Your task to perform on an android device: Open Android settings Image 0: 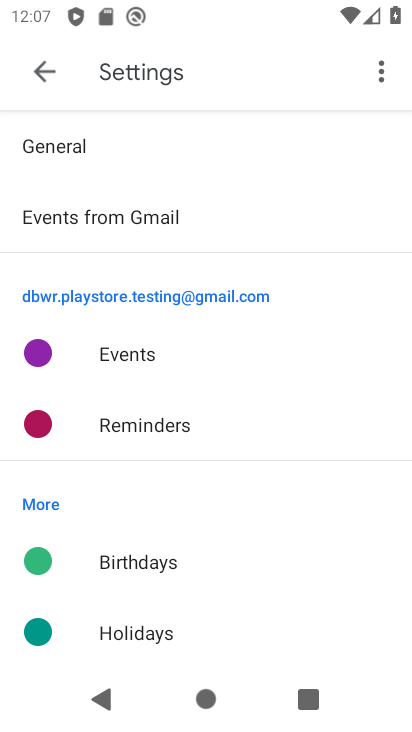
Step 0: press home button
Your task to perform on an android device: Open Android settings Image 1: 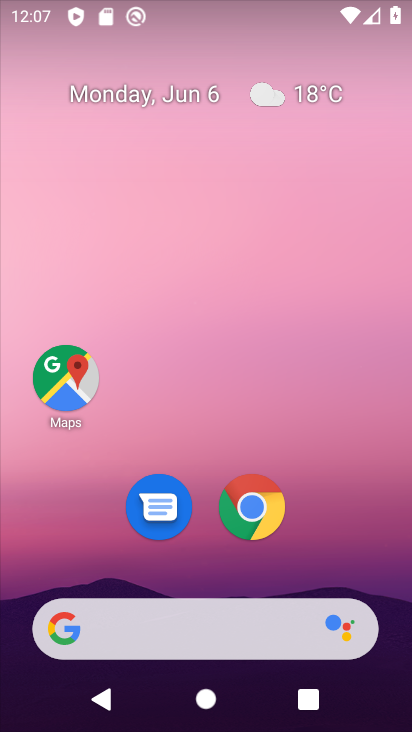
Step 1: drag from (212, 462) to (245, 181)
Your task to perform on an android device: Open Android settings Image 2: 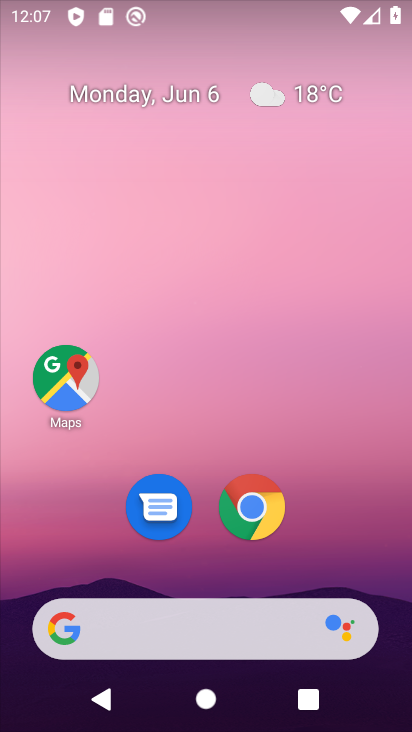
Step 2: drag from (232, 573) to (171, 0)
Your task to perform on an android device: Open Android settings Image 3: 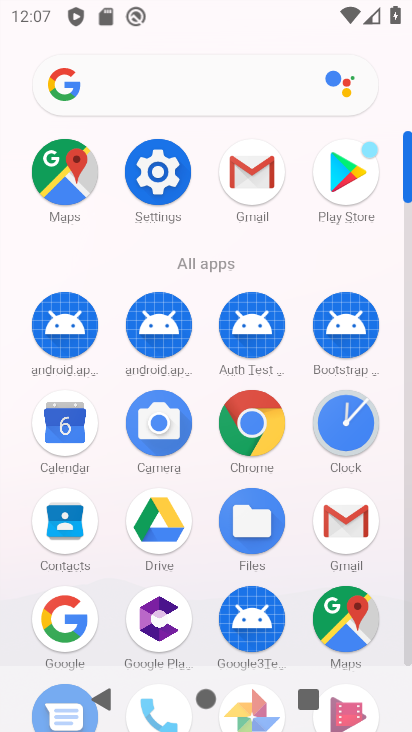
Step 3: click (167, 194)
Your task to perform on an android device: Open Android settings Image 4: 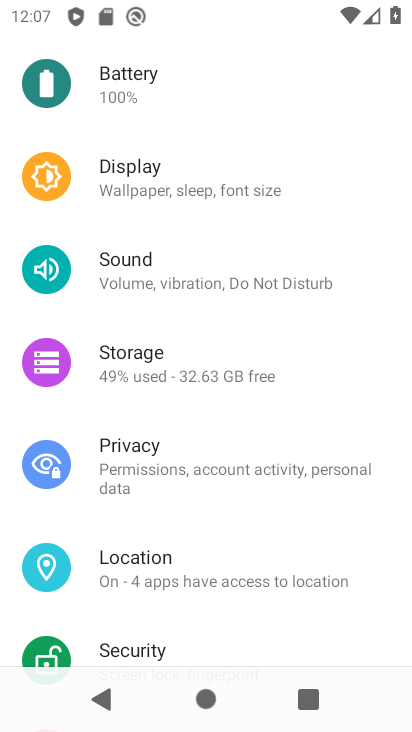
Step 4: drag from (207, 590) to (249, 197)
Your task to perform on an android device: Open Android settings Image 5: 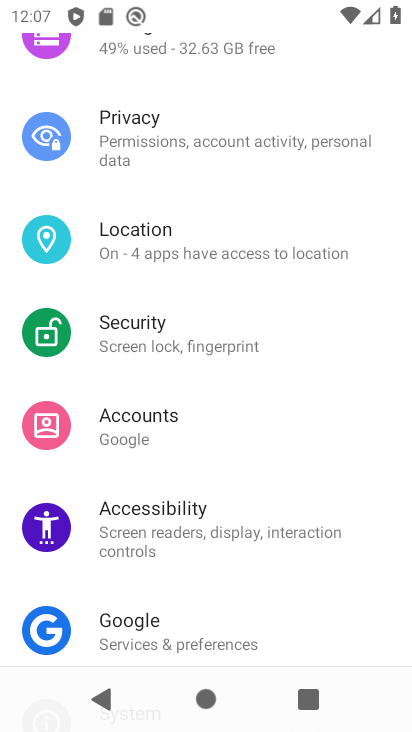
Step 5: drag from (188, 574) to (224, 245)
Your task to perform on an android device: Open Android settings Image 6: 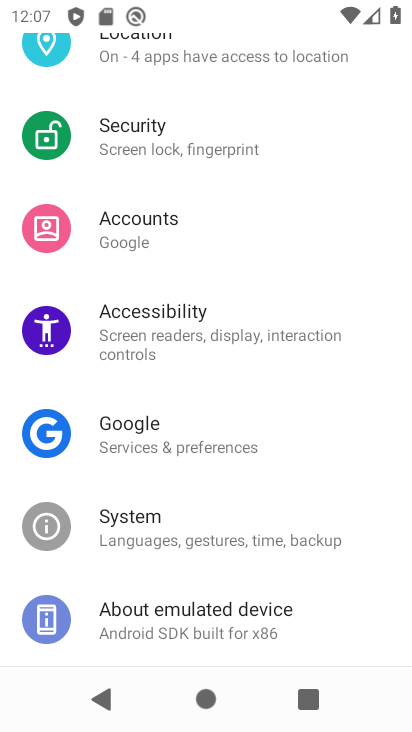
Step 6: click (185, 635)
Your task to perform on an android device: Open Android settings Image 7: 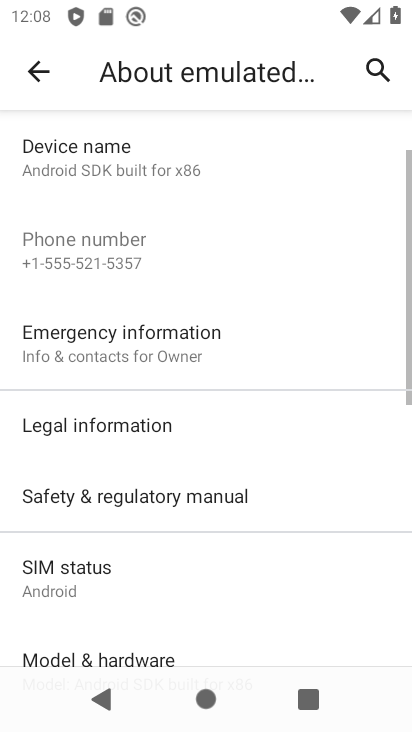
Step 7: task complete